Your task to perform on an android device: Open my contact list Image 0: 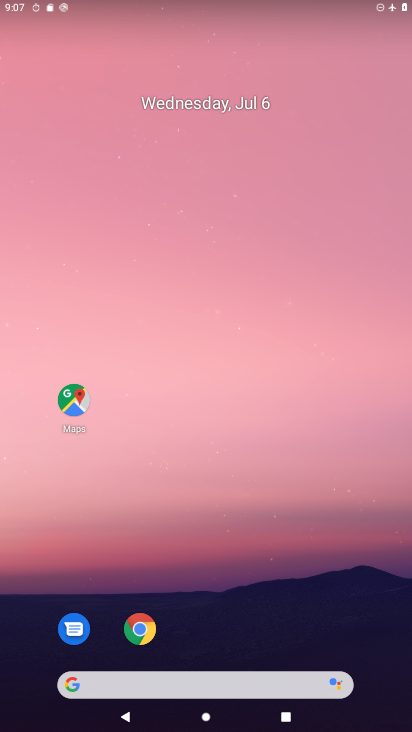
Step 0: drag from (239, 719) to (239, 588)
Your task to perform on an android device: Open my contact list Image 1: 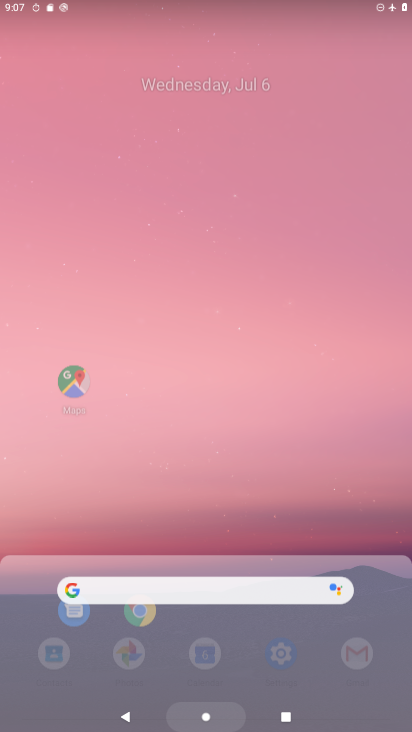
Step 1: drag from (230, 166) to (224, 115)
Your task to perform on an android device: Open my contact list Image 2: 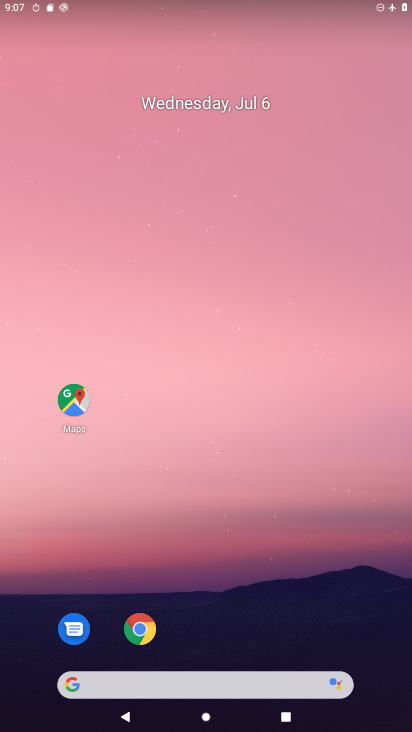
Step 2: drag from (336, 728) to (284, 39)
Your task to perform on an android device: Open my contact list Image 3: 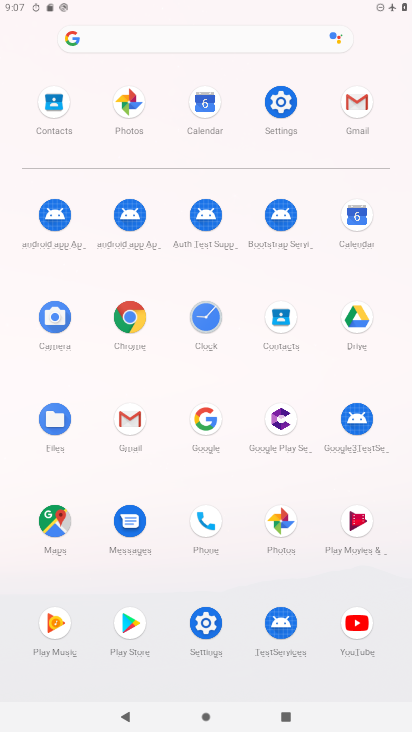
Step 3: click (281, 316)
Your task to perform on an android device: Open my contact list Image 4: 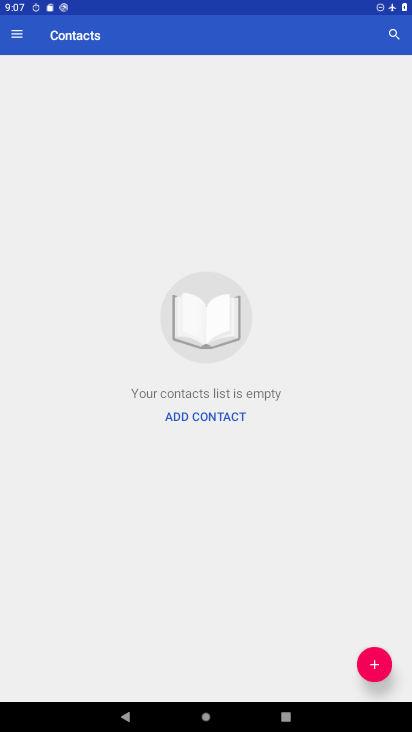
Step 4: task complete